Your task to perform on an android device: change the clock display to analog Image 0: 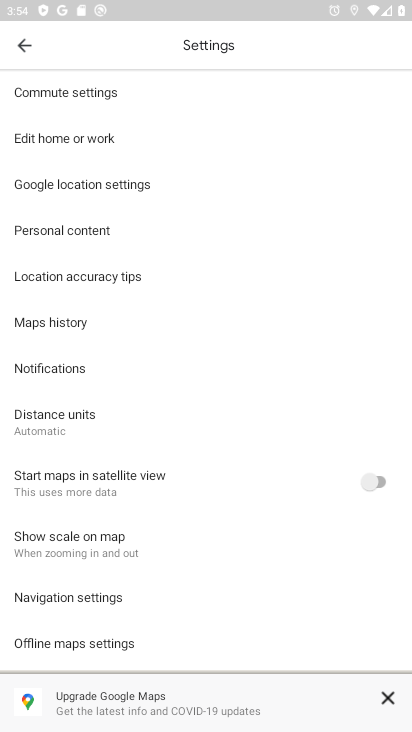
Step 0: press home button
Your task to perform on an android device: change the clock display to analog Image 1: 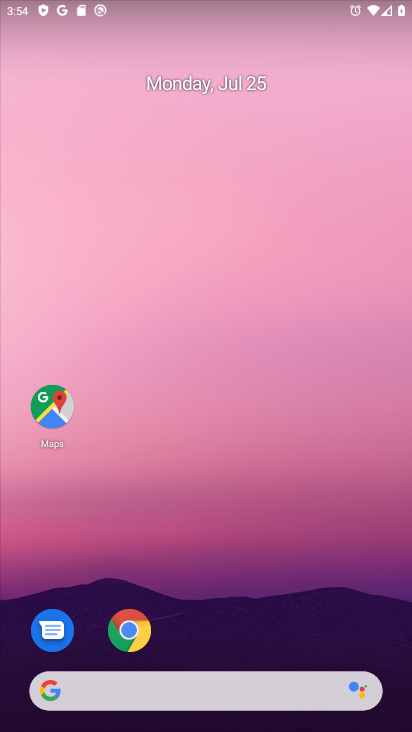
Step 1: drag from (189, 687) to (199, 213)
Your task to perform on an android device: change the clock display to analog Image 2: 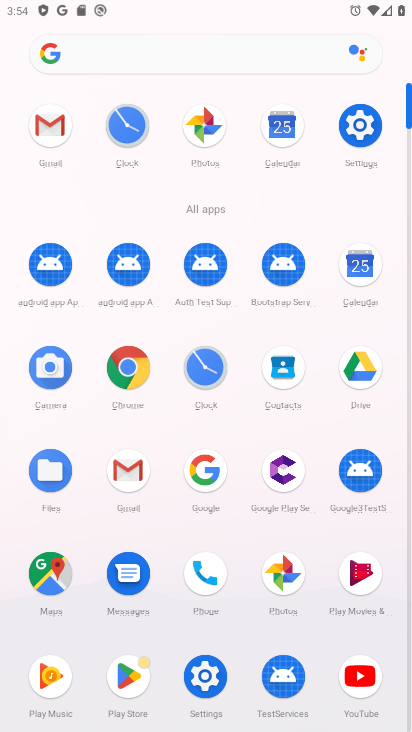
Step 2: click (206, 366)
Your task to perform on an android device: change the clock display to analog Image 3: 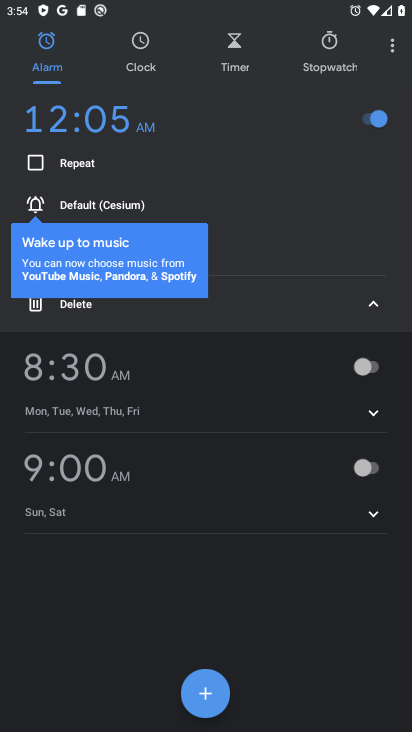
Step 3: click (394, 46)
Your task to perform on an android device: change the clock display to analog Image 4: 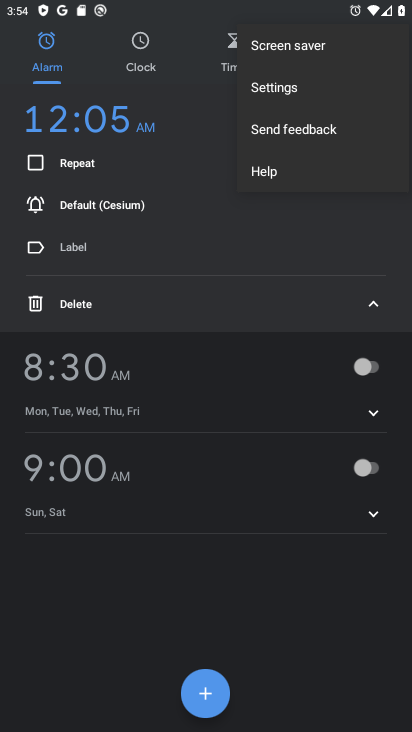
Step 4: click (291, 88)
Your task to perform on an android device: change the clock display to analog Image 5: 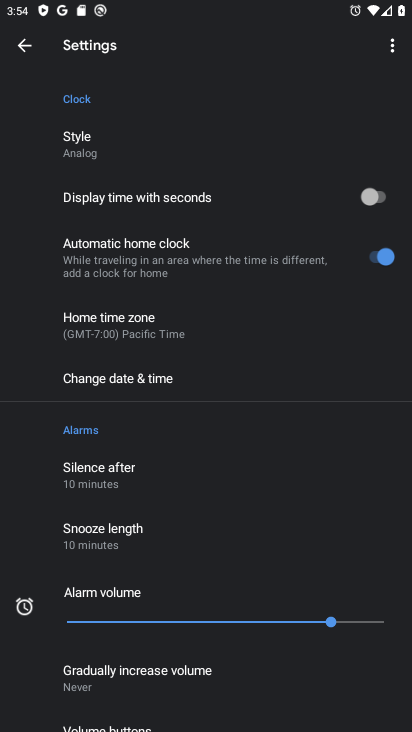
Step 5: task complete